Your task to perform on an android device: toggle airplane mode Image 0: 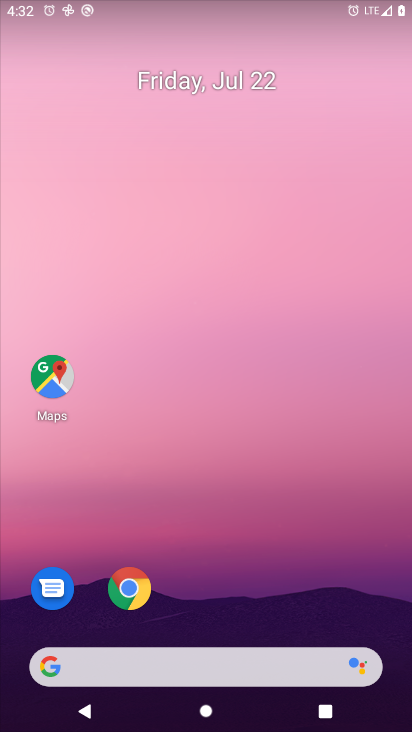
Step 0: drag from (297, 4) to (297, 320)
Your task to perform on an android device: toggle airplane mode Image 1: 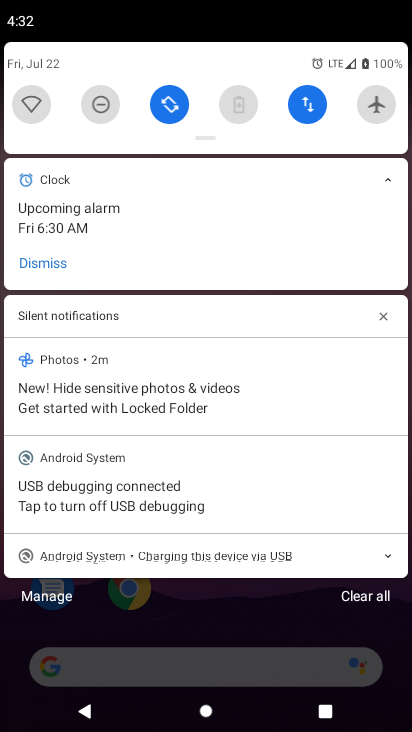
Step 1: click (368, 104)
Your task to perform on an android device: toggle airplane mode Image 2: 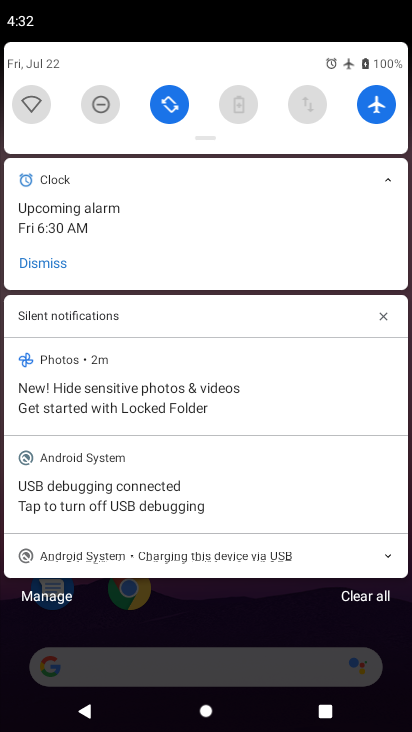
Step 2: task complete